Your task to perform on an android device: Check the news Image 0: 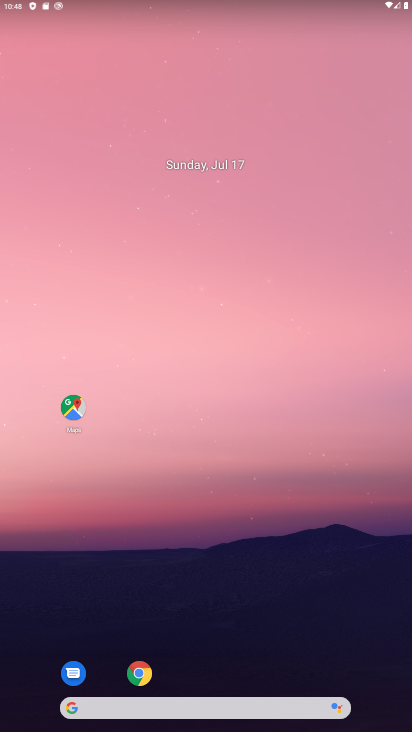
Step 0: drag from (154, 139) to (208, 51)
Your task to perform on an android device: Check the news Image 1: 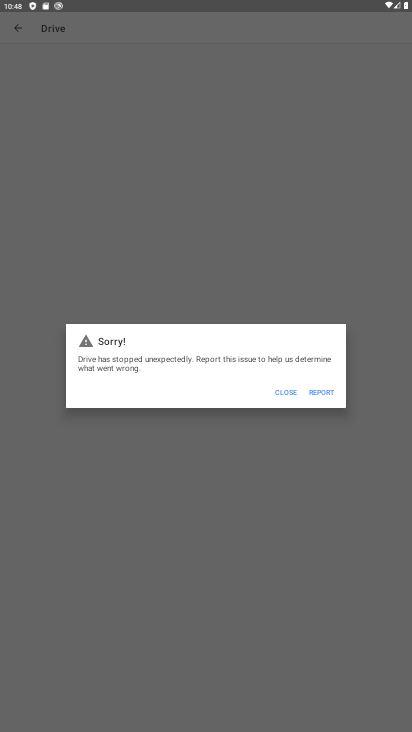
Step 1: press home button
Your task to perform on an android device: Check the news Image 2: 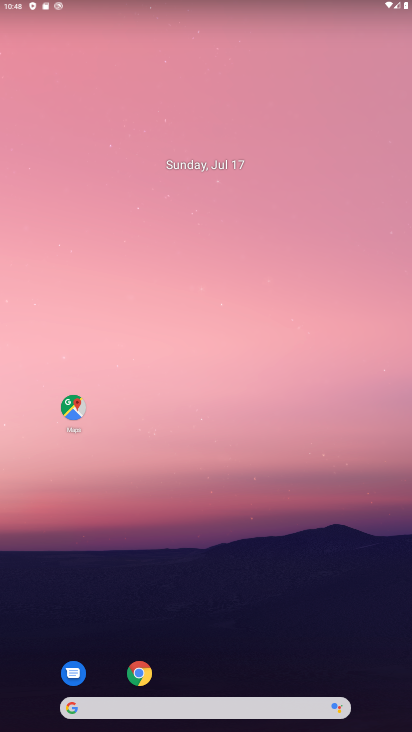
Step 2: drag from (19, 296) to (406, 343)
Your task to perform on an android device: Check the news Image 3: 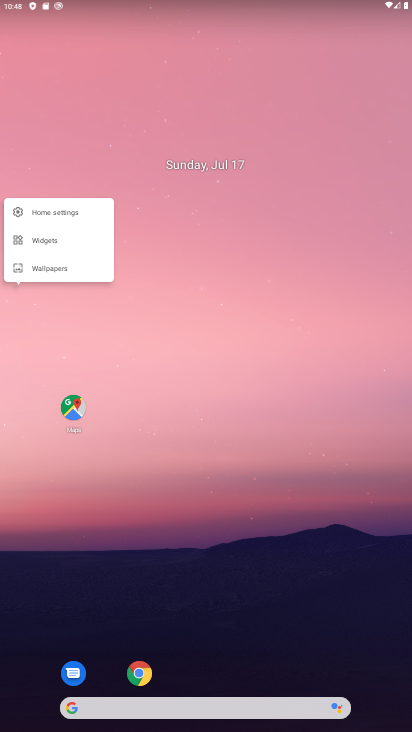
Step 3: click (261, 374)
Your task to perform on an android device: Check the news Image 4: 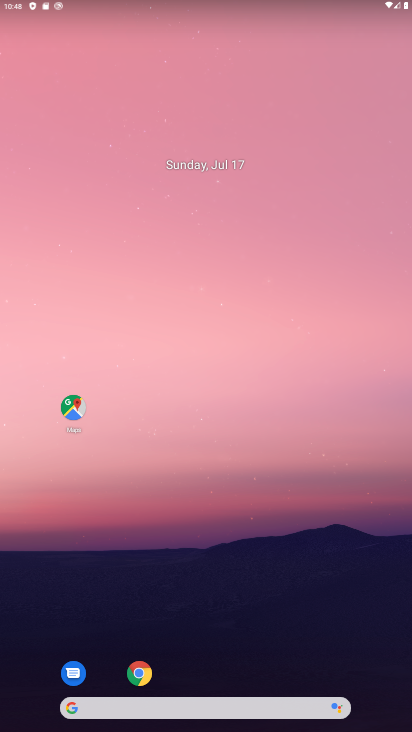
Step 4: task complete